Your task to perform on an android device: turn off location history Image 0: 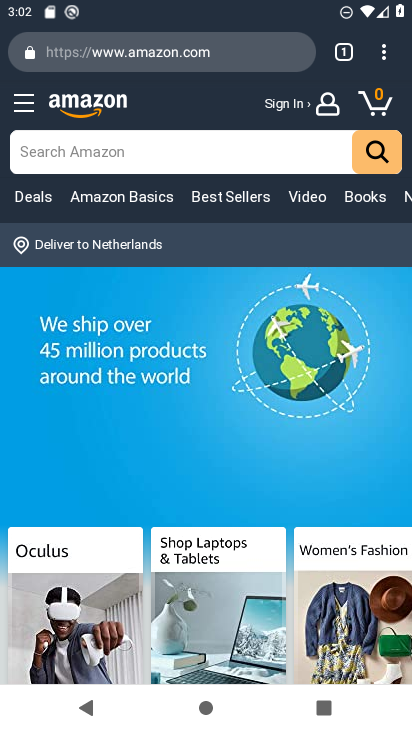
Step 0: press home button
Your task to perform on an android device: turn off location history Image 1: 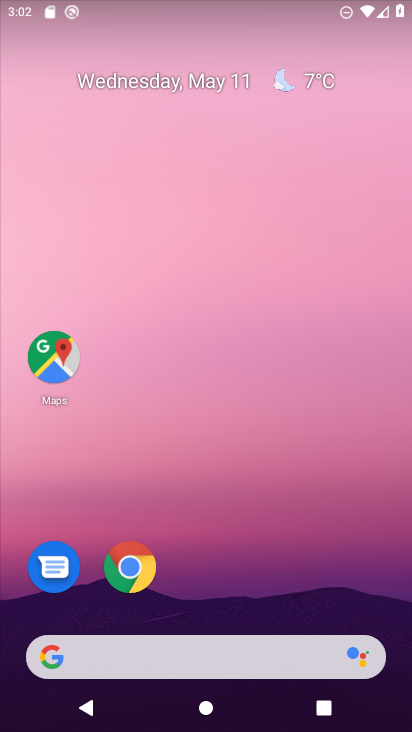
Step 1: drag from (362, 485) to (261, 123)
Your task to perform on an android device: turn off location history Image 2: 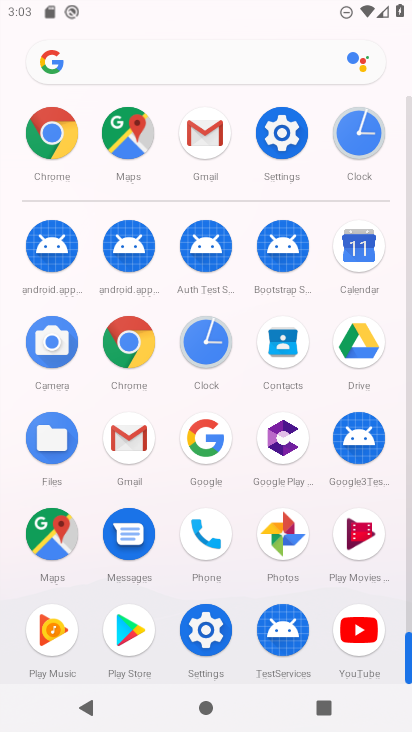
Step 2: click (201, 627)
Your task to perform on an android device: turn off location history Image 3: 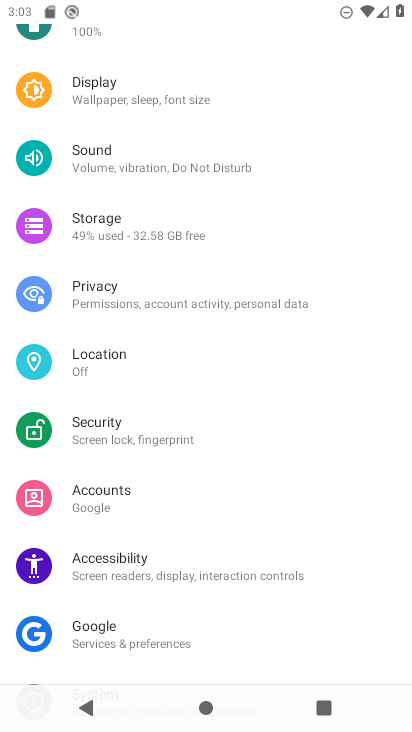
Step 3: drag from (285, 574) to (238, 396)
Your task to perform on an android device: turn off location history Image 4: 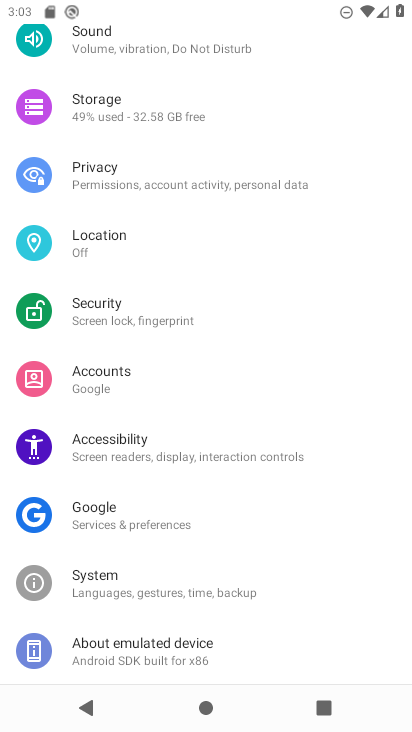
Step 4: click (127, 250)
Your task to perform on an android device: turn off location history Image 5: 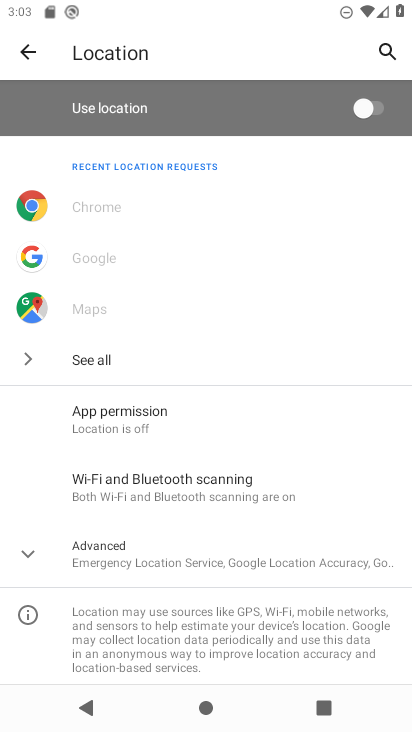
Step 5: click (115, 543)
Your task to perform on an android device: turn off location history Image 6: 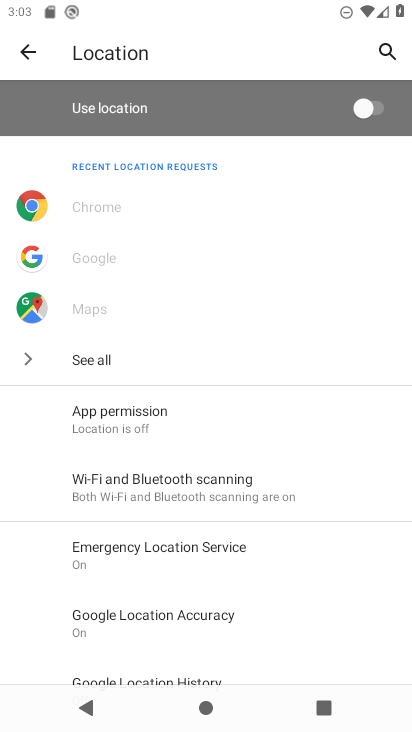
Step 6: drag from (256, 652) to (233, 548)
Your task to perform on an android device: turn off location history Image 7: 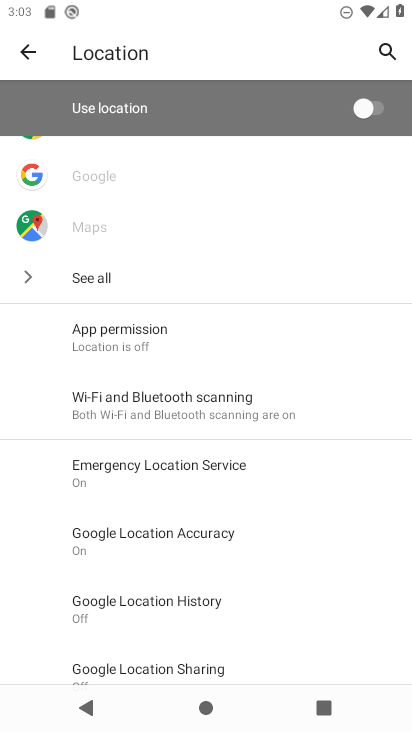
Step 7: click (168, 603)
Your task to perform on an android device: turn off location history Image 8: 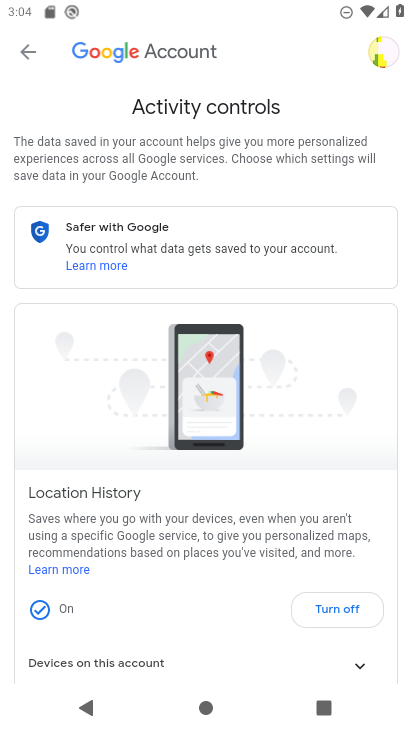
Step 8: click (321, 601)
Your task to perform on an android device: turn off location history Image 9: 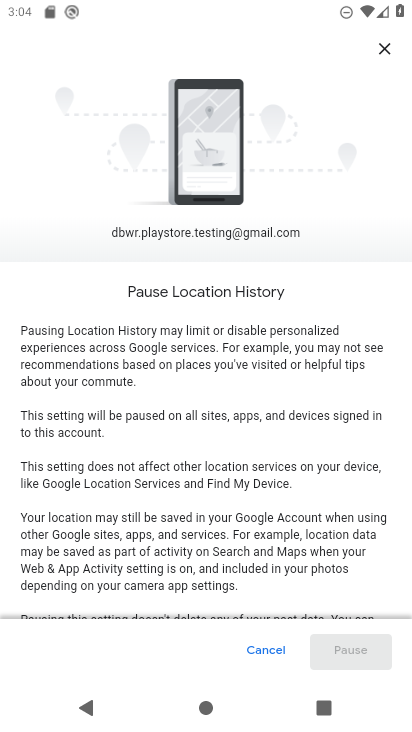
Step 9: drag from (332, 558) to (255, 274)
Your task to perform on an android device: turn off location history Image 10: 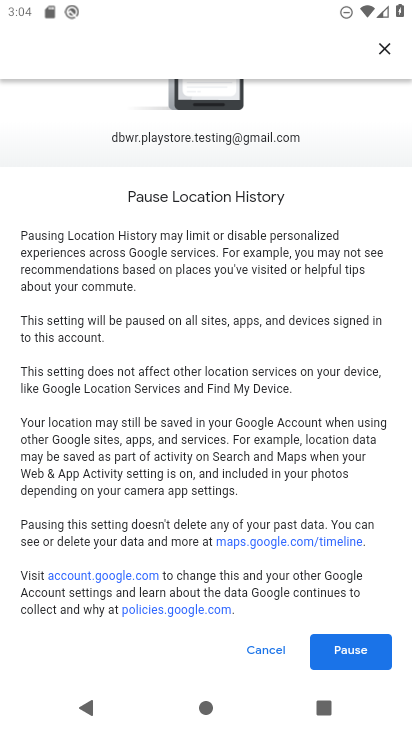
Step 10: click (379, 661)
Your task to perform on an android device: turn off location history Image 11: 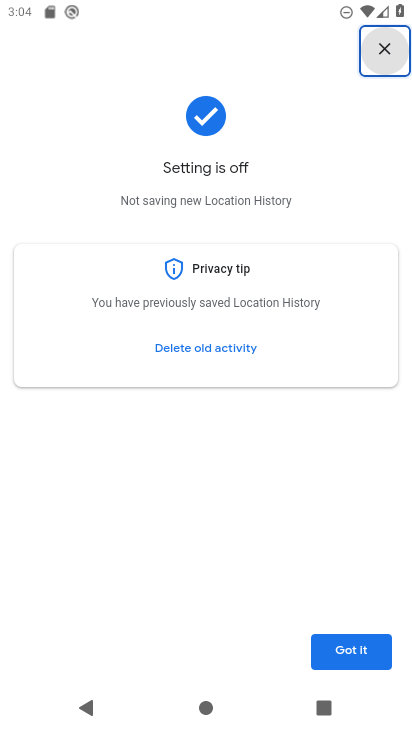
Step 11: click (370, 660)
Your task to perform on an android device: turn off location history Image 12: 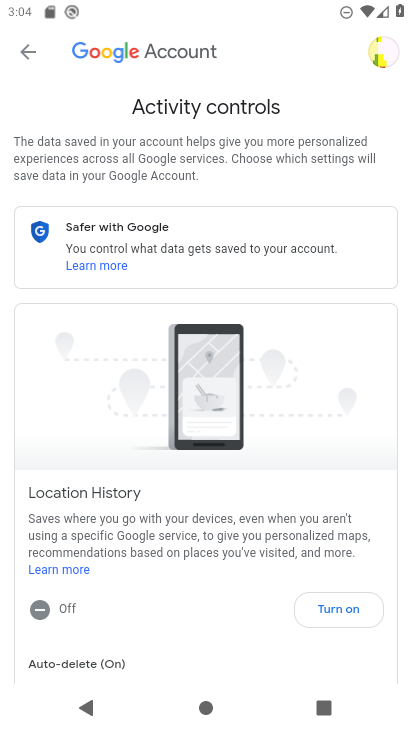
Step 12: task complete